Your task to perform on an android device: Open internet settings Image 0: 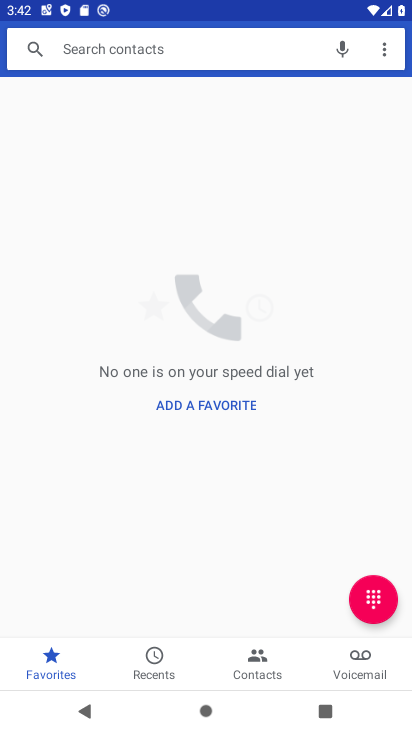
Step 0: press back button
Your task to perform on an android device: Open internet settings Image 1: 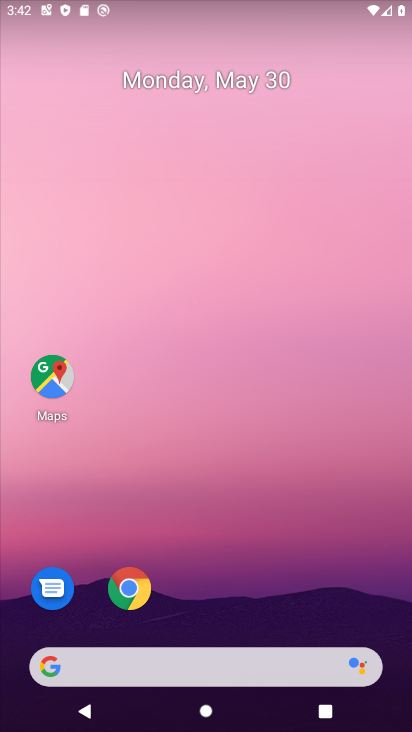
Step 1: drag from (281, 585) to (172, 32)
Your task to perform on an android device: Open internet settings Image 2: 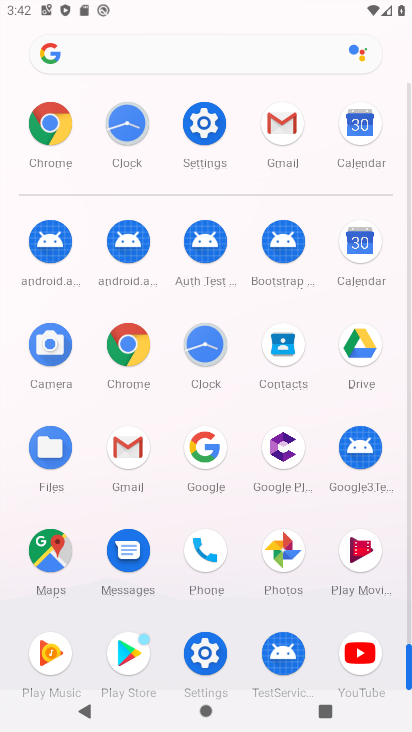
Step 2: drag from (19, 554) to (8, 225)
Your task to perform on an android device: Open internet settings Image 3: 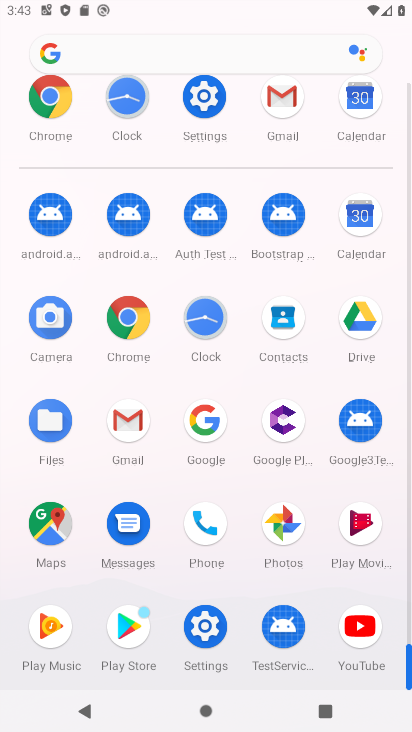
Step 3: click (201, 621)
Your task to perform on an android device: Open internet settings Image 4: 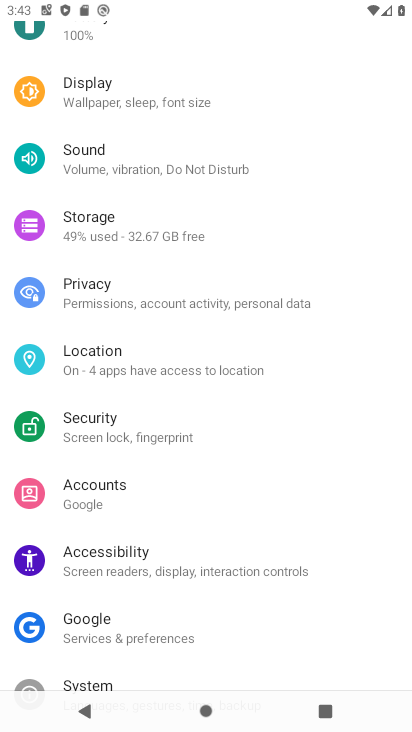
Step 4: drag from (200, 87) to (211, 598)
Your task to perform on an android device: Open internet settings Image 5: 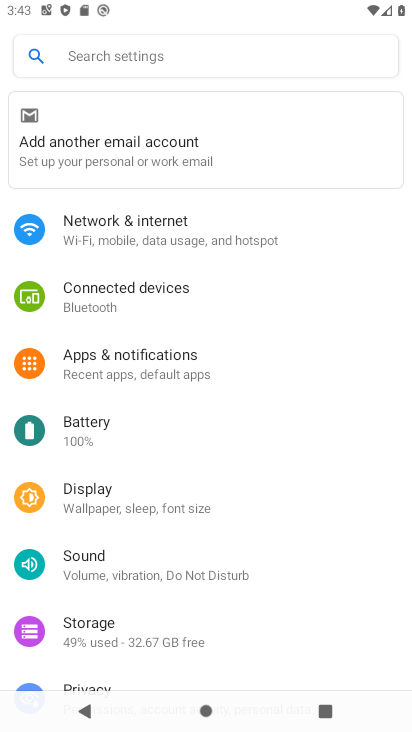
Step 5: click (147, 218)
Your task to perform on an android device: Open internet settings Image 6: 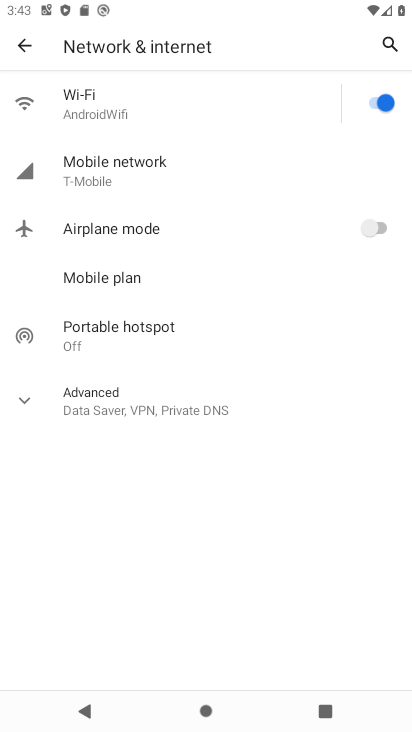
Step 6: click (36, 393)
Your task to perform on an android device: Open internet settings Image 7: 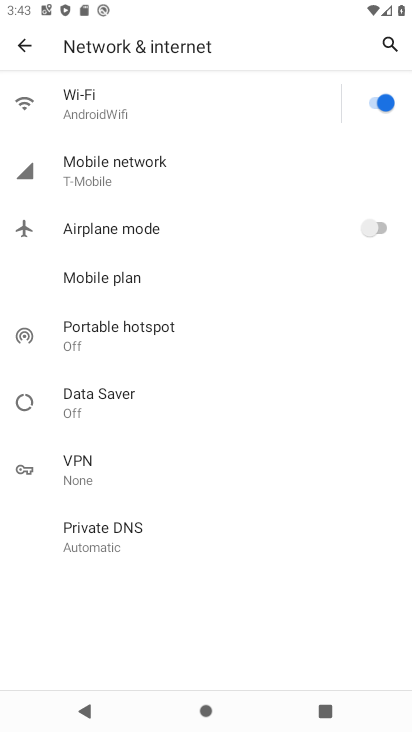
Step 7: task complete